Your task to perform on an android device: see creations saved in the google photos Image 0: 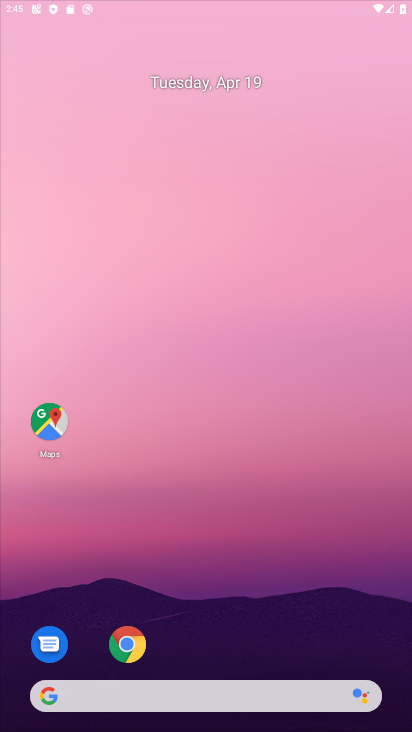
Step 0: drag from (264, 288) to (260, 110)
Your task to perform on an android device: see creations saved in the google photos Image 1: 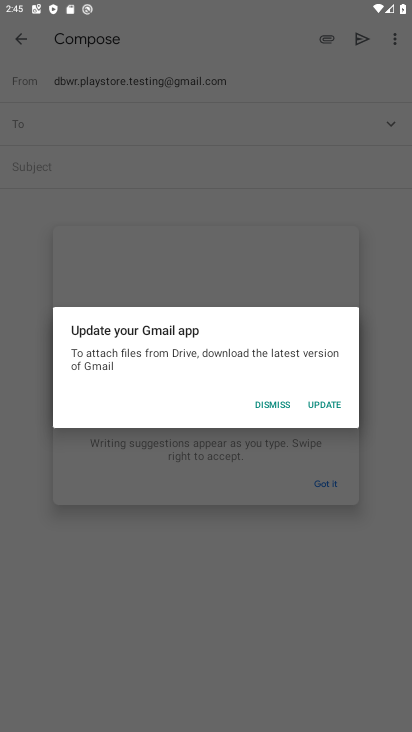
Step 1: press home button
Your task to perform on an android device: see creations saved in the google photos Image 2: 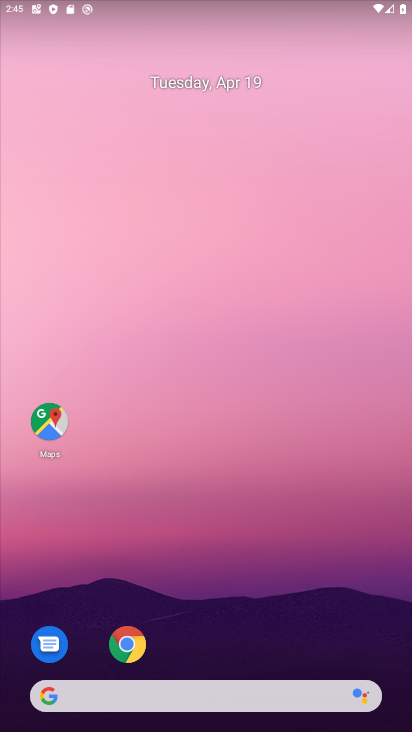
Step 2: drag from (232, 645) to (222, 100)
Your task to perform on an android device: see creations saved in the google photos Image 3: 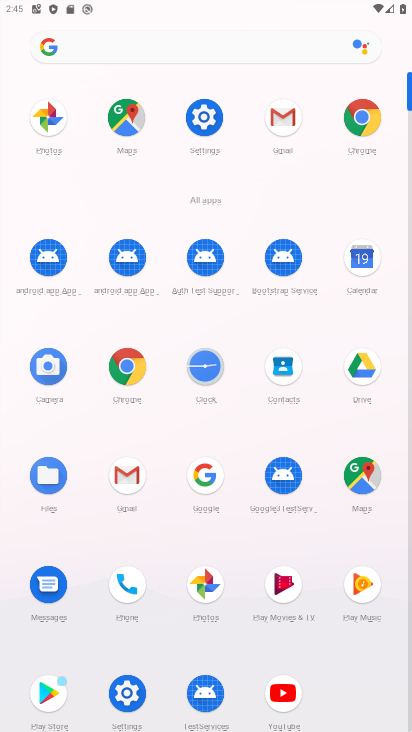
Step 3: click (204, 575)
Your task to perform on an android device: see creations saved in the google photos Image 4: 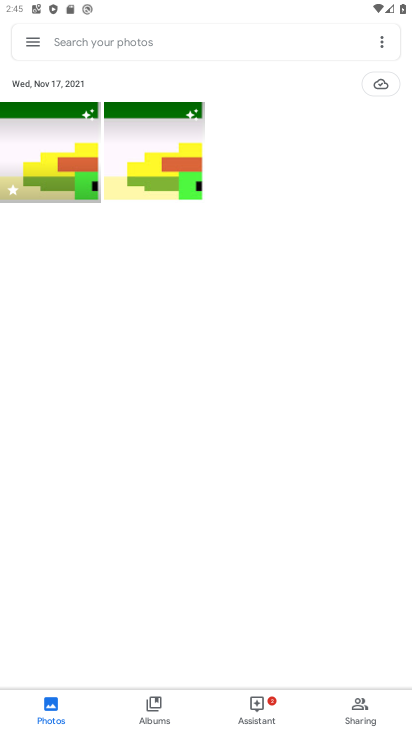
Step 4: click (164, 710)
Your task to perform on an android device: see creations saved in the google photos Image 5: 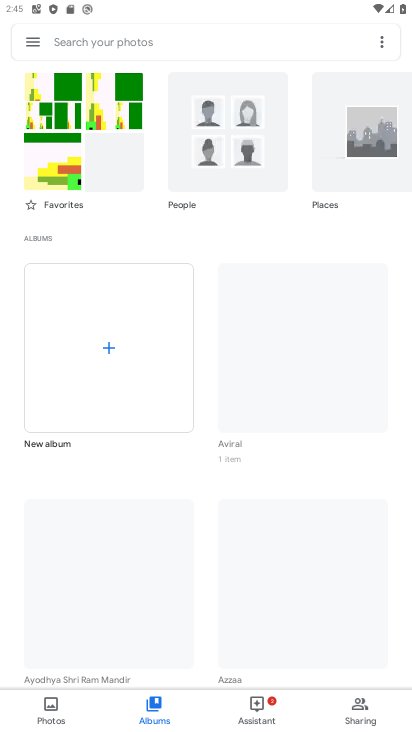
Step 5: click (245, 716)
Your task to perform on an android device: see creations saved in the google photos Image 6: 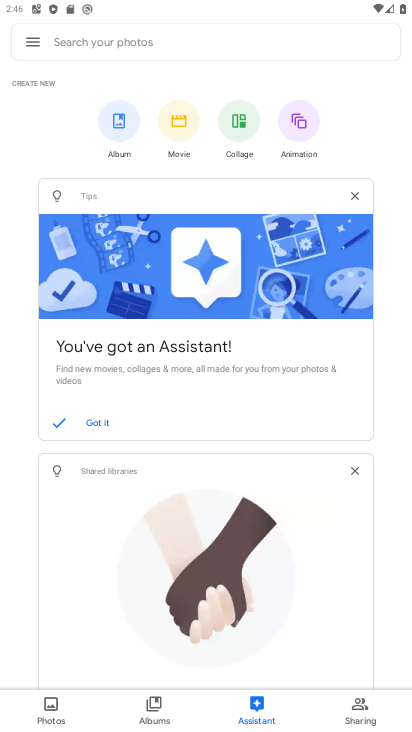
Step 6: click (346, 715)
Your task to perform on an android device: see creations saved in the google photos Image 7: 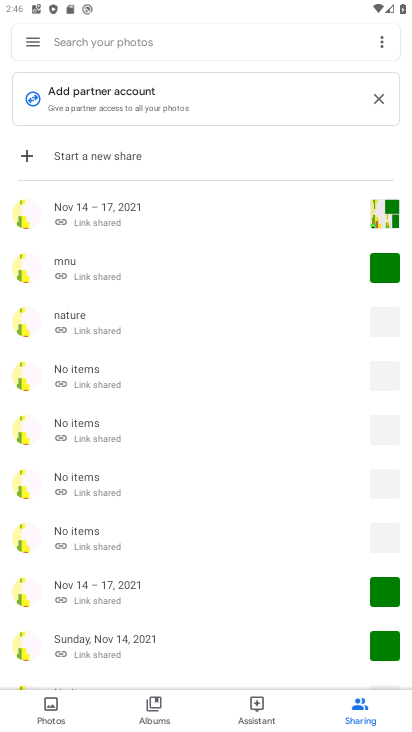
Step 7: task complete